Your task to perform on an android device: set an alarm Image 0: 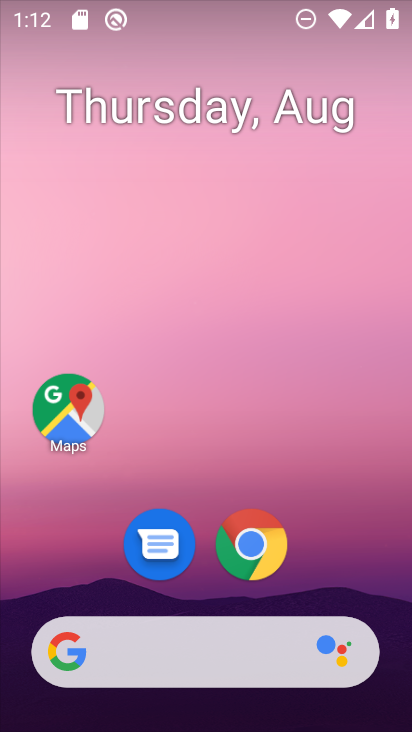
Step 0: drag from (218, 586) to (182, 31)
Your task to perform on an android device: set an alarm Image 1: 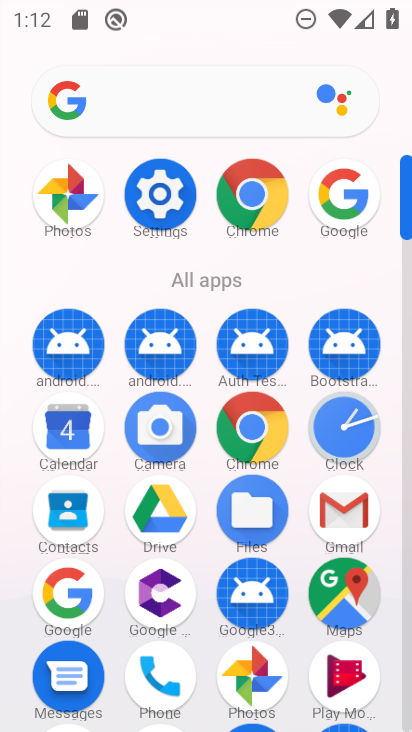
Step 1: click (333, 439)
Your task to perform on an android device: set an alarm Image 2: 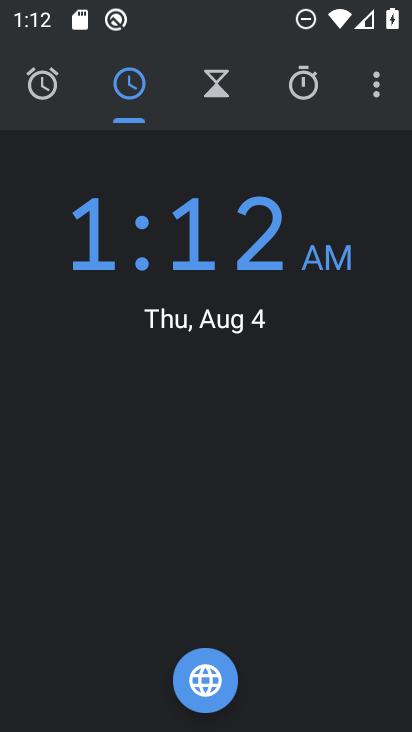
Step 2: click (375, 87)
Your task to perform on an android device: set an alarm Image 3: 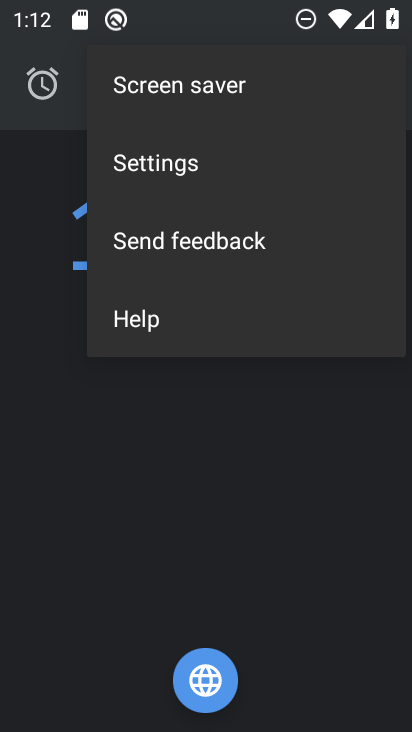
Step 3: click (39, 455)
Your task to perform on an android device: set an alarm Image 4: 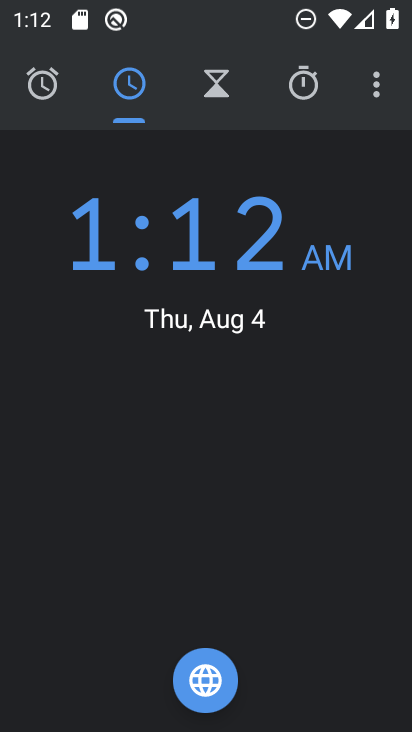
Step 4: click (11, 80)
Your task to perform on an android device: set an alarm Image 5: 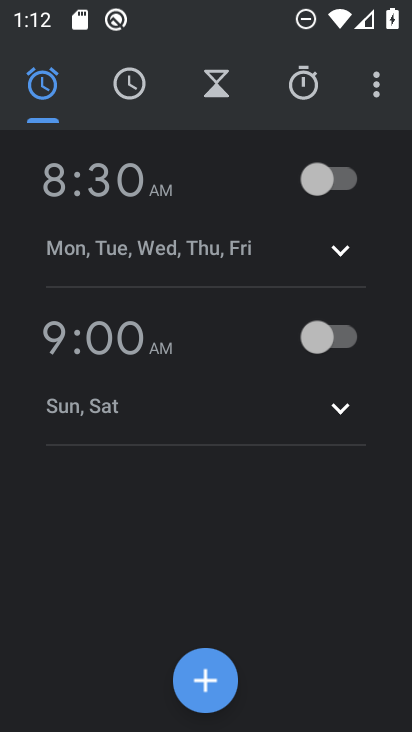
Step 5: click (214, 681)
Your task to perform on an android device: set an alarm Image 6: 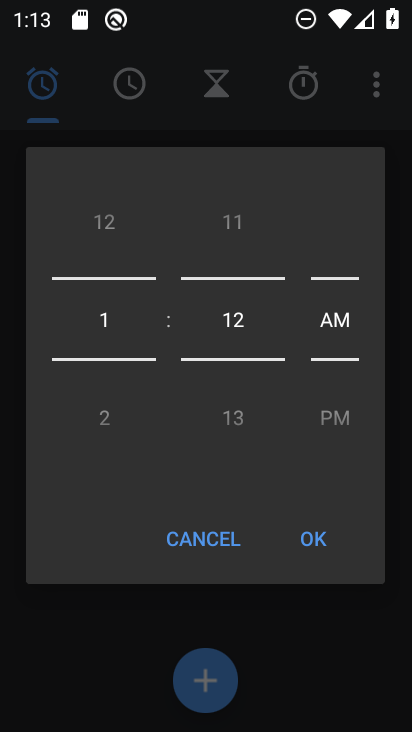
Step 6: click (304, 549)
Your task to perform on an android device: set an alarm Image 7: 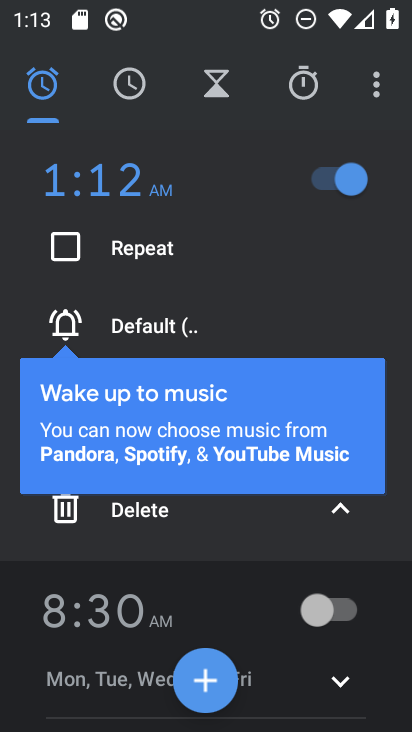
Step 7: task complete